Your task to perform on an android device: What's the weather going to be this weekend? Image 0: 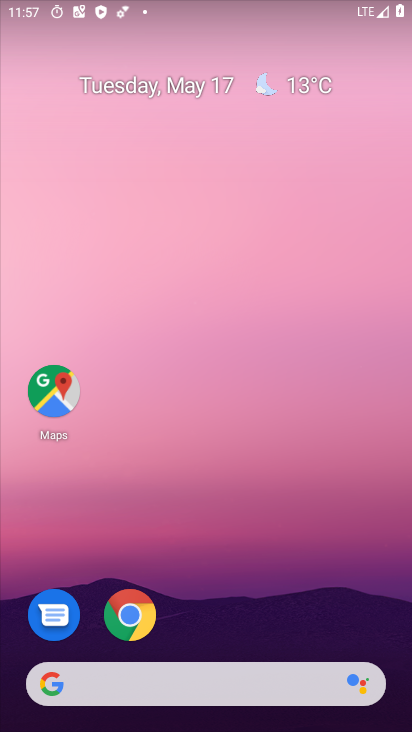
Step 0: press home button
Your task to perform on an android device: What's the weather going to be this weekend? Image 1: 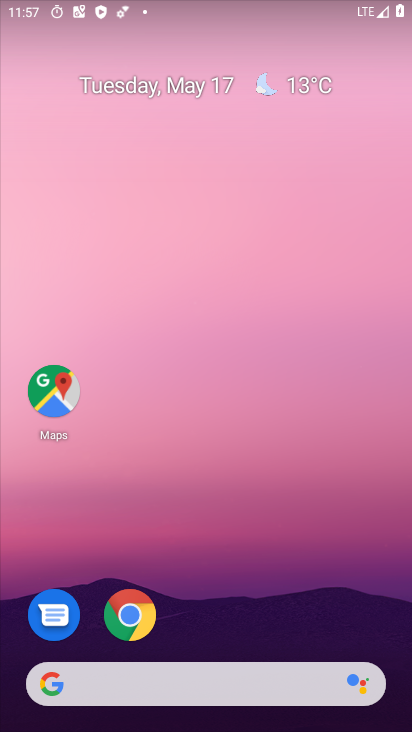
Step 1: click (305, 89)
Your task to perform on an android device: What's the weather going to be this weekend? Image 2: 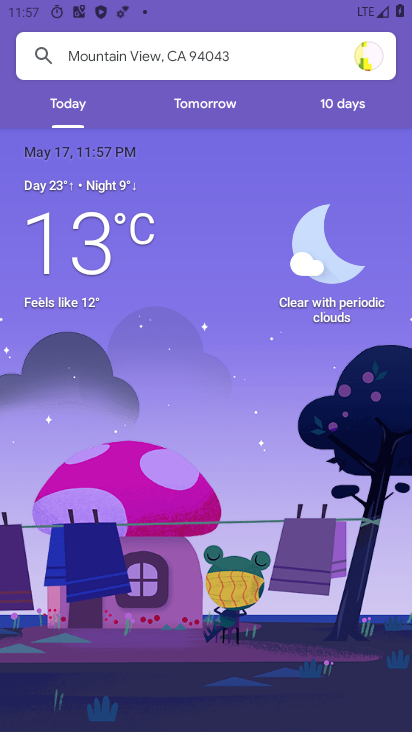
Step 2: click (332, 106)
Your task to perform on an android device: What's the weather going to be this weekend? Image 3: 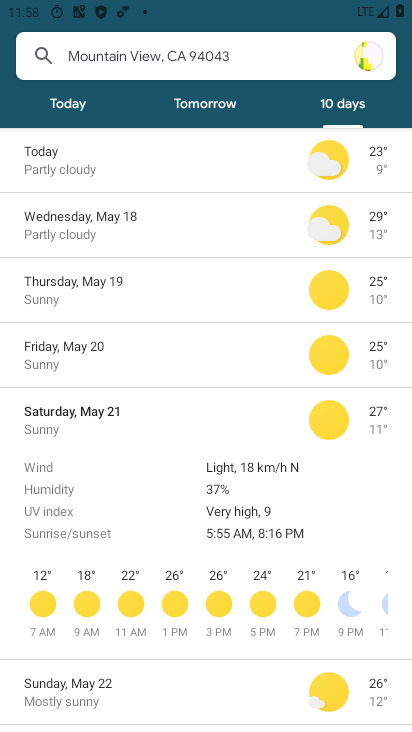
Step 3: task complete